Your task to perform on an android device: Go to notification settings Image 0: 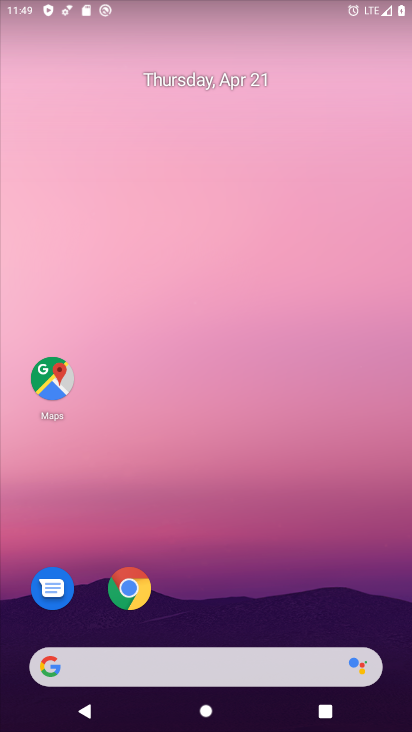
Step 0: drag from (277, 696) to (263, 198)
Your task to perform on an android device: Go to notification settings Image 1: 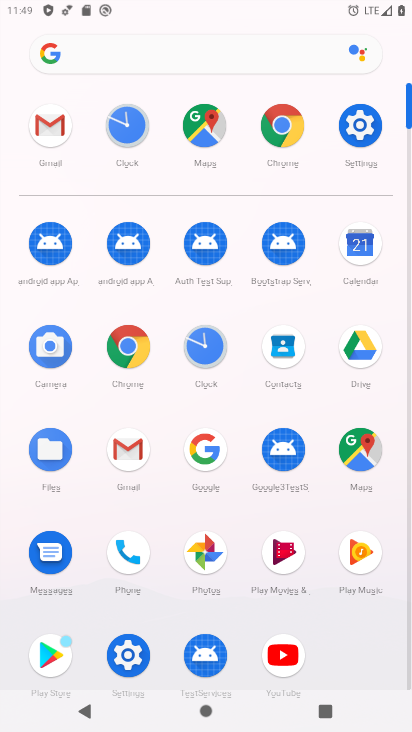
Step 1: drag from (404, 92) to (358, 131)
Your task to perform on an android device: Go to notification settings Image 2: 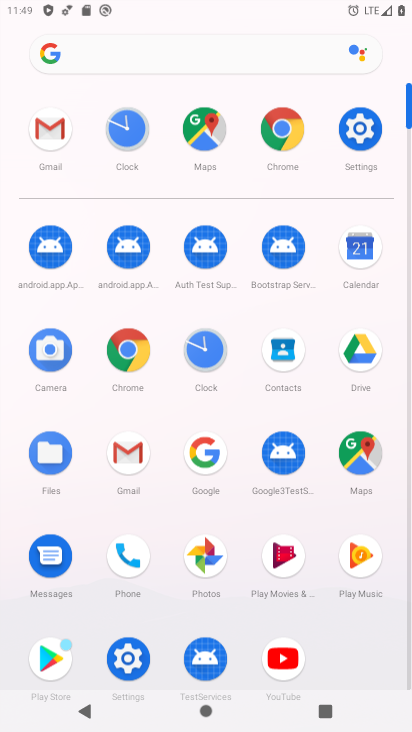
Step 2: click (358, 131)
Your task to perform on an android device: Go to notification settings Image 3: 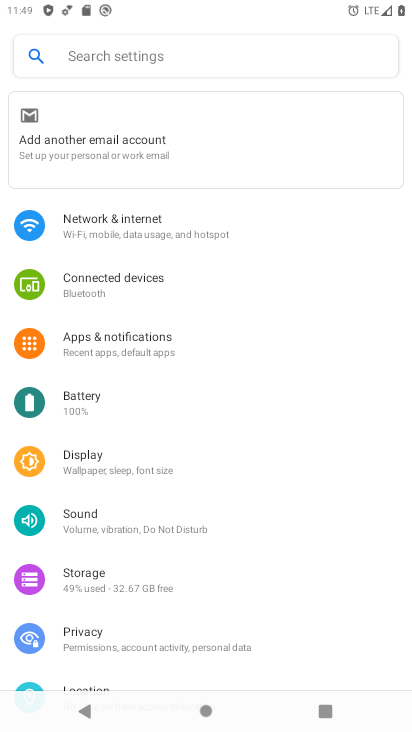
Step 3: click (202, 60)
Your task to perform on an android device: Go to notification settings Image 4: 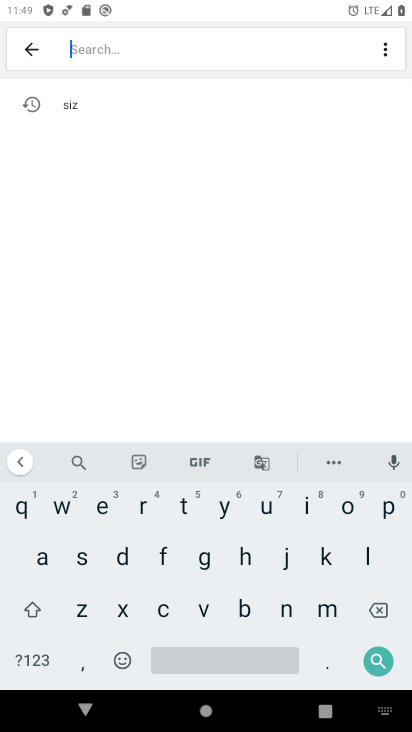
Step 4: click (289, 605)
Your task to perform on an android device: Go to notification settings Image 5: 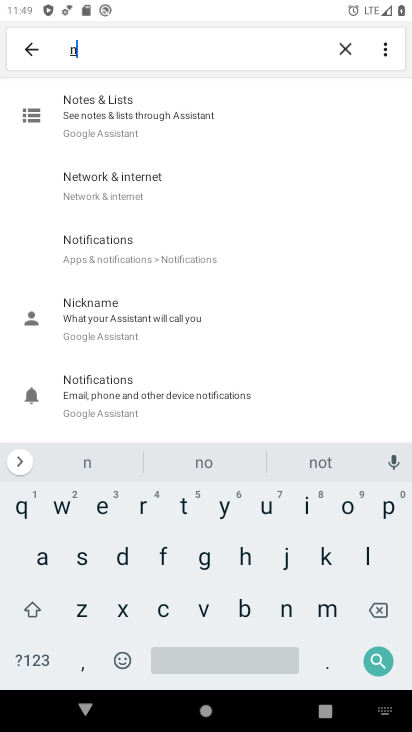
Step 5: click (348, 507)
Your task to perform on an android device: Go to notification settings Image 6: 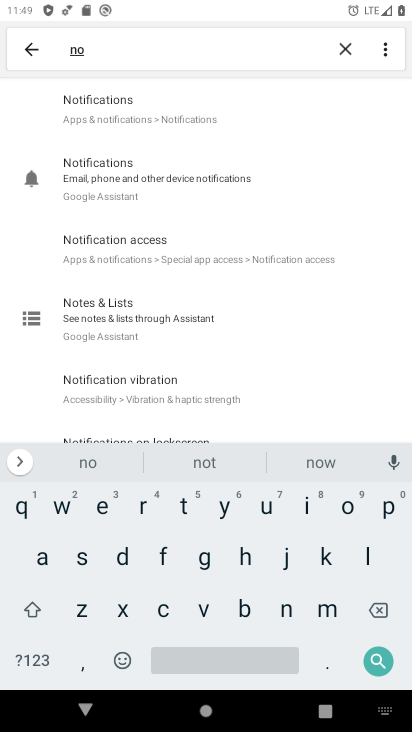
Step 6: click (170, 109)
Your task to perform on an android device: Go to notification settings Image 7: 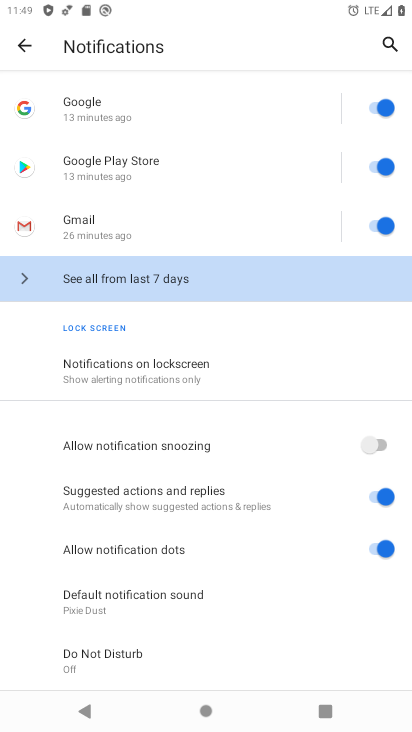
Step 7: click (130, 366)
Your task to perform on an android device: Go to notification settings Image 8: 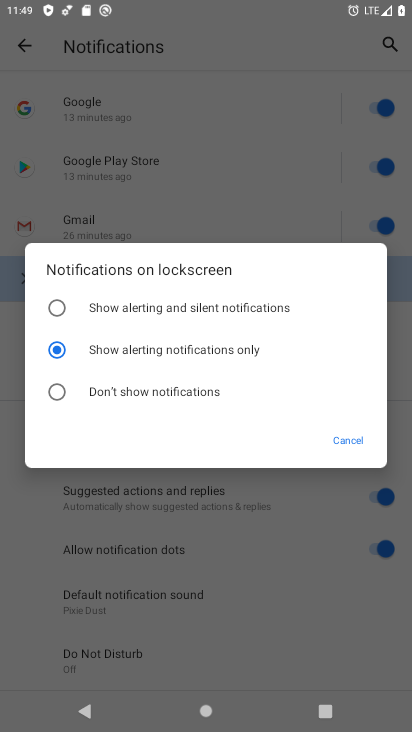
Step 8: task complete